Your task to perform on an android device: Go to display settings Image 0: 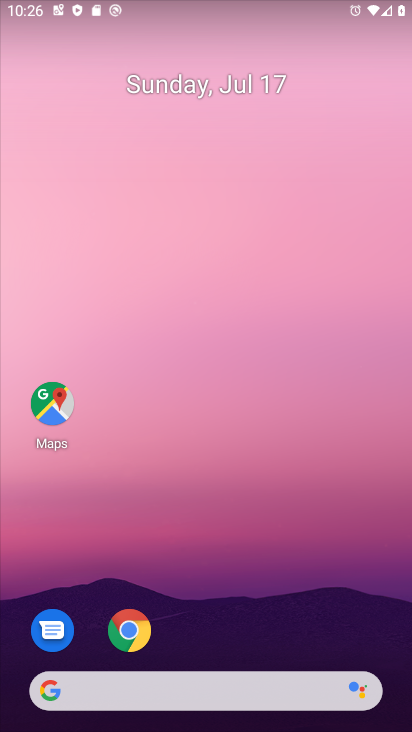
Step 0: drag from (321, 627) to (343, 69)
Your task to perform on an android device: Go to display settings Image 1: 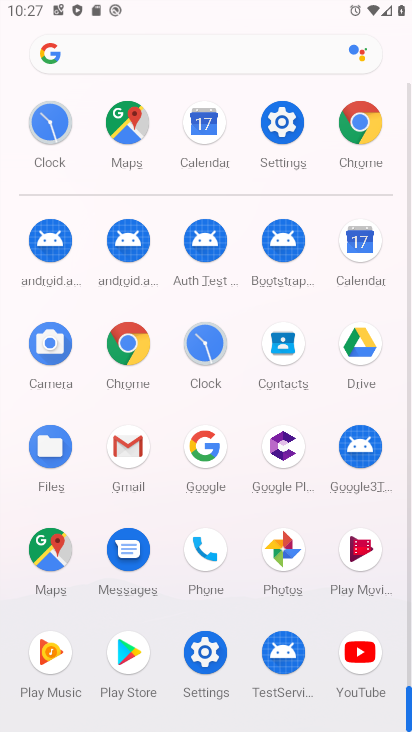
Step 1: click (277, 131)
Your task to perform on an android device: Go to display settings Image 2: 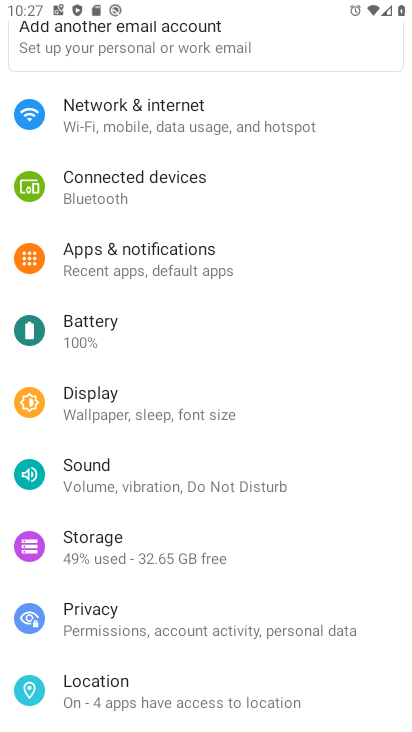
Step 2: drag from (341, 476) to (361, 315)
Your task to perform on an android device: Go to display settings Image 3: 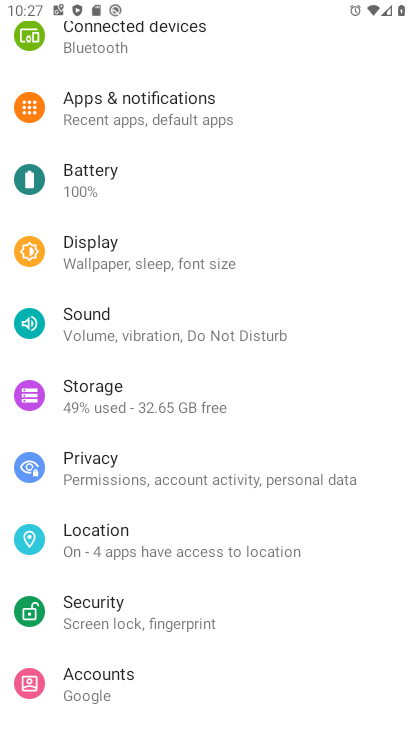
Step 3: drag from (337, 590) to (345, 289)
Your task to perform on an android device: Go to display settings Image 4: 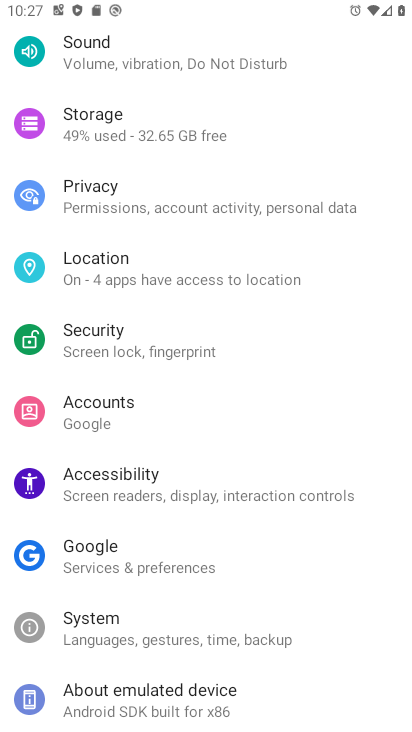
Step 4: drag from (351, 564) to (355, 370)
Your task to perform on an android device: Go to display settings Image 5: 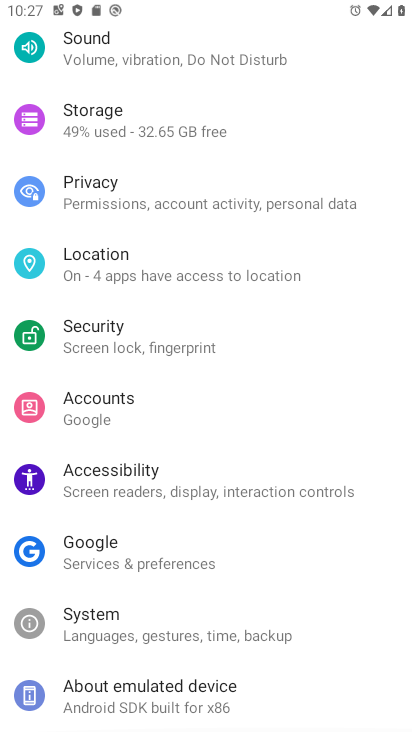
Step 5: drag from (364, 281) to (355, 489)
Your task to perform on an android device: Go to display settings Image 6: 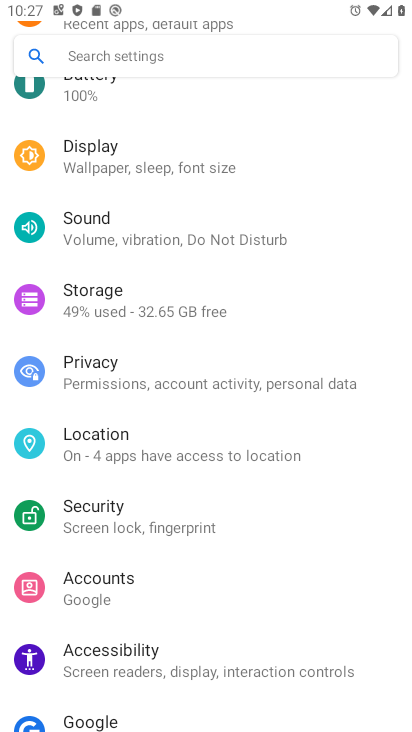
Step 6: drag from (357, 292) to (359, 404)
Your task to perform on an android device: Go to display settings Image 7: 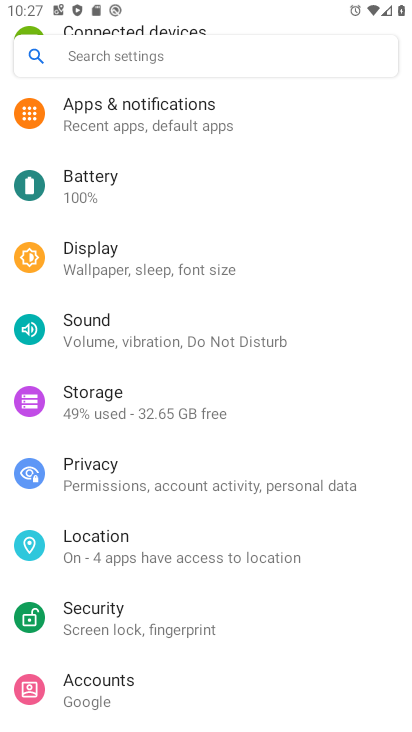
Step 7: drag from (370, 225) to (371, 357)
Your task to perform on an android device: Go to display settings Image 8: 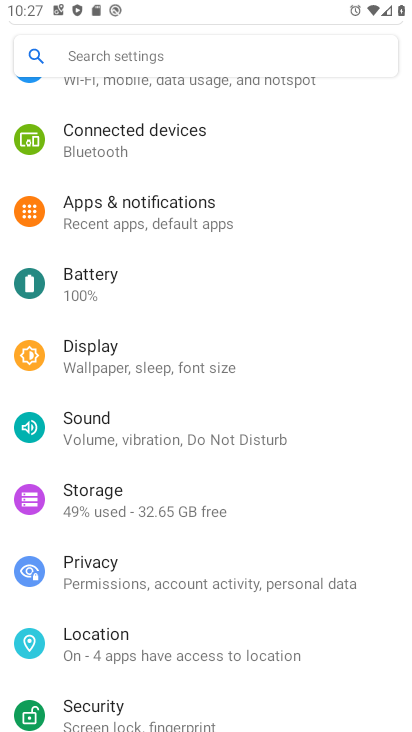
Step 8: drag from (346, 186) to (349, 358)
Your task to perform on an android device: Go to display settings Image 9: 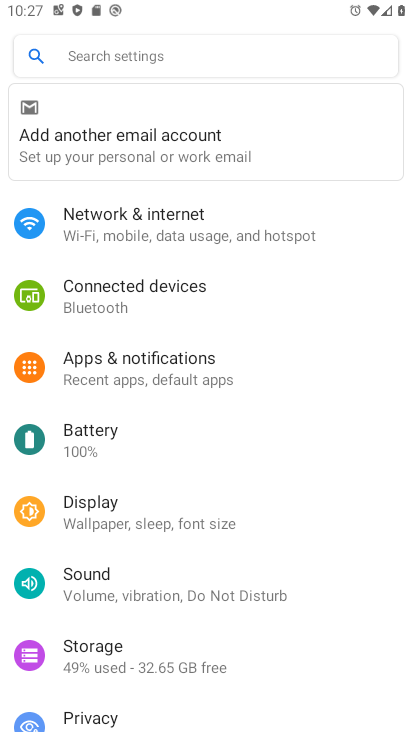
Step 9: drag from (354, 264) to (360, 421)
Your task to perform on an android device: Go to display settings Image 10: 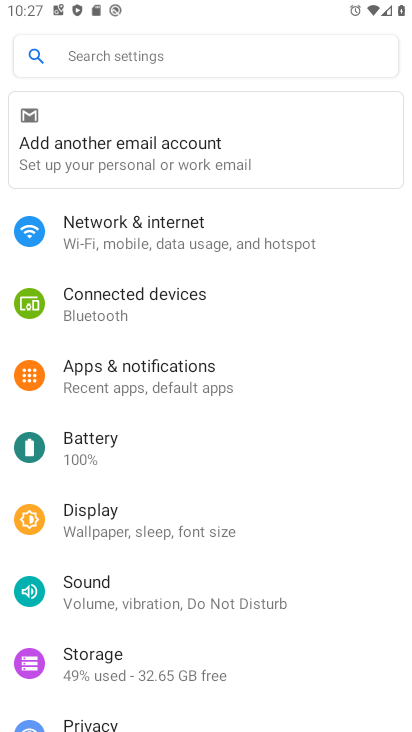
Step 10: drag from (345, 494) to (352, 378)
Your task to perform on an android device: Go to display settings Image 11: 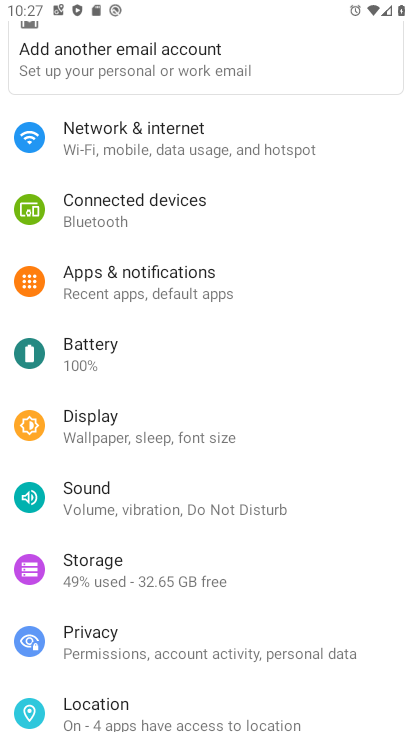
Step 11: drag from (349, 488) to (344, 358)
Your task to perform on an android device: Go to display settings Image 12: 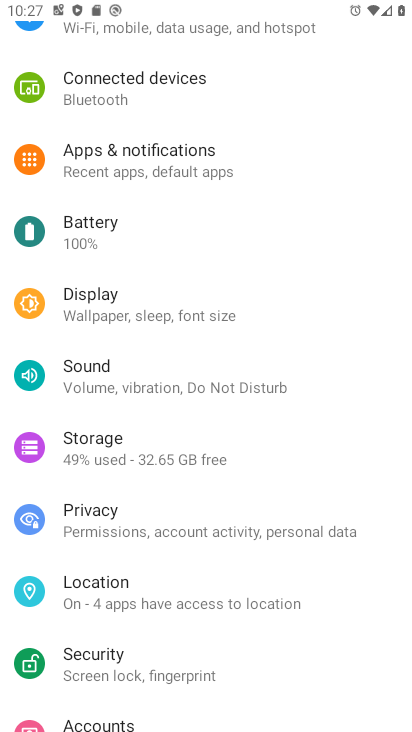
Step 12: click (236, 302)
Your task to perform on an android device: Go to display settings Image 13: 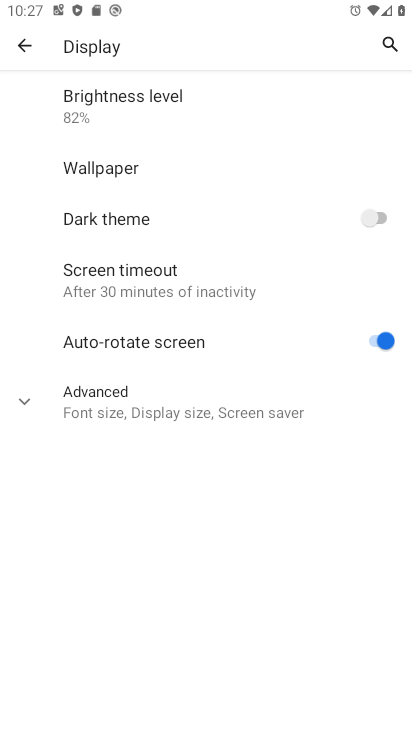
Step 13: click (228, 411)
Your task to perform on an android device: Go to display settings Image 14: 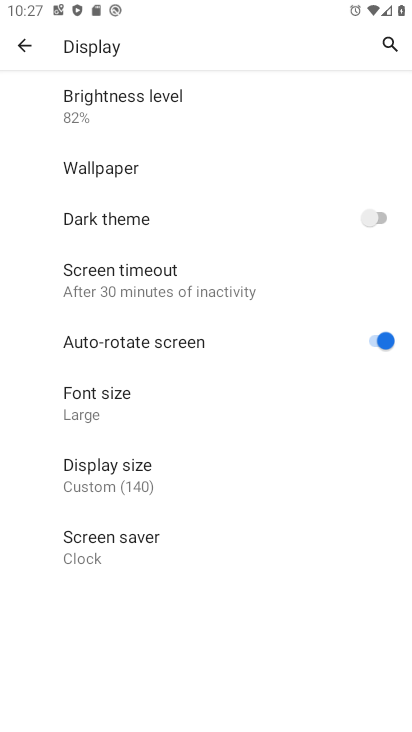
Step 14: task complete